Your task to perform on an android device: change keyboard looks Image 0: 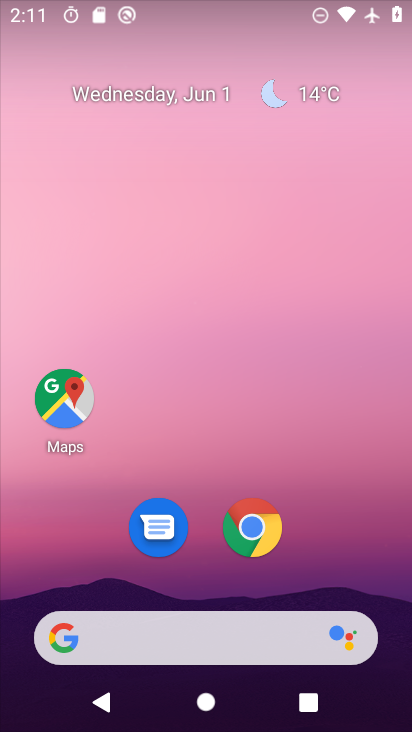
Step 0: drag from (225, 632) to (247, 267)
Your task to perform on an android device: change keyboard looks Image 1: 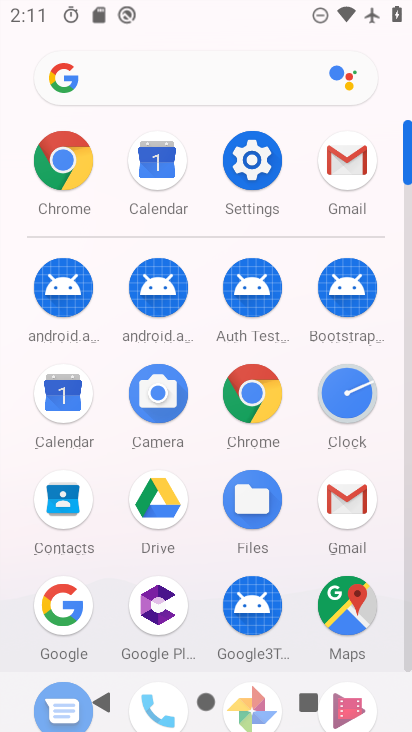
Step 1: click (270, 175)
Your task to perform on an android device: change keyboard looks Image 2: 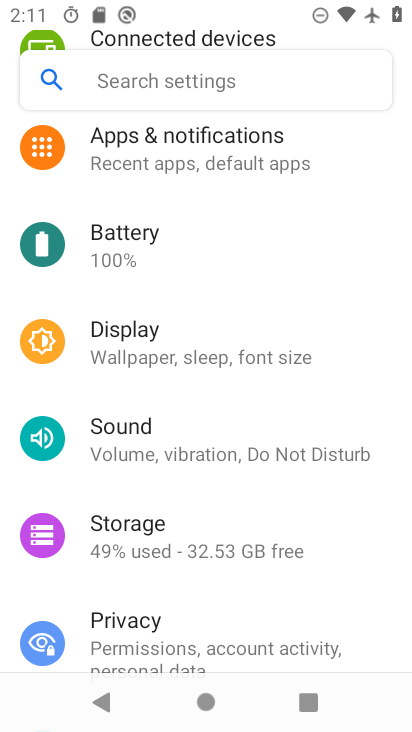
Step 2: drag from (185, 497) to (211, 273)
Your task to perform on an android device: change keyboard looks Image 3: 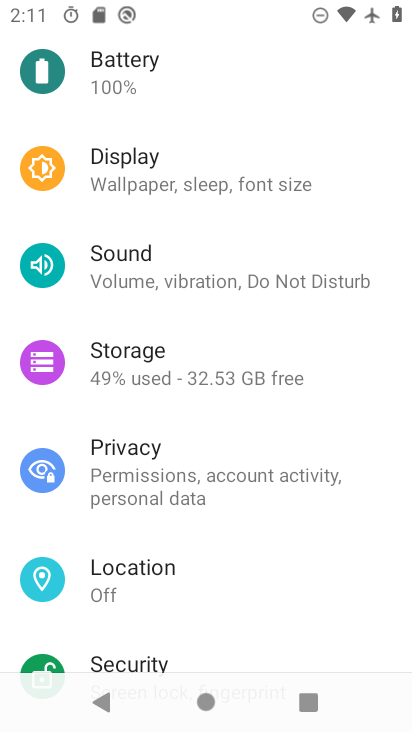
Step 3: drag from (175, 497) to (213, 228)
Your task to perform on an android device: change keyboard looks Image 4: 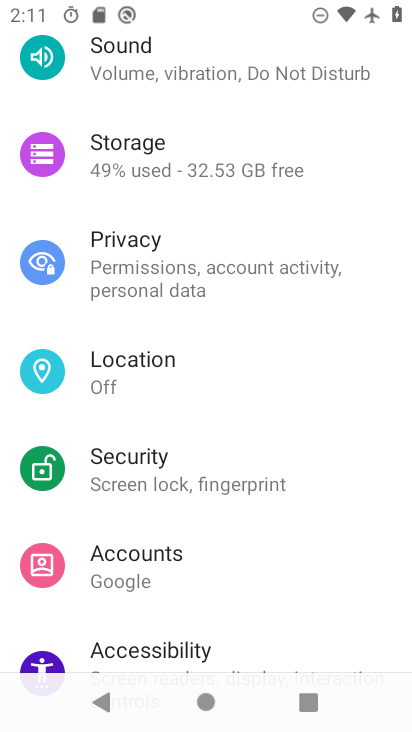
Step 4: drag from (169, 476) to (272, 62)
Your task to perform on an android device: change keyboard looks Image 5: 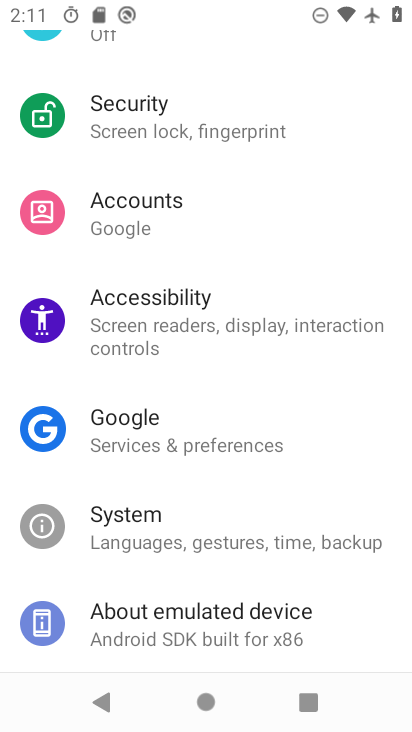
Step 5: click (248, 546)
Your task to perform on an android device: change keyboard looks Image 6: 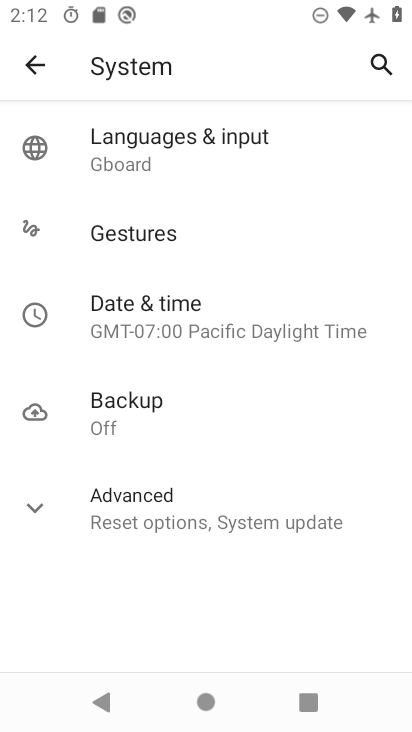
Step 6: click (205, 153)
Your task to perform on an android device: change keyboard looks Image 7: 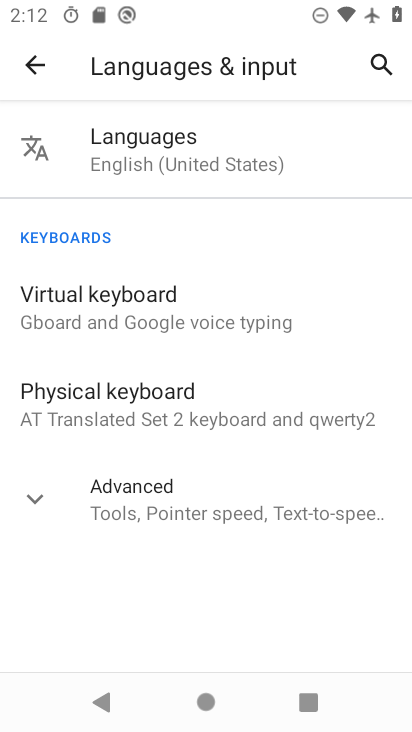
Step 7: click (157, 297)
Your task to perform on an android device: change keyboard looks Image 8: 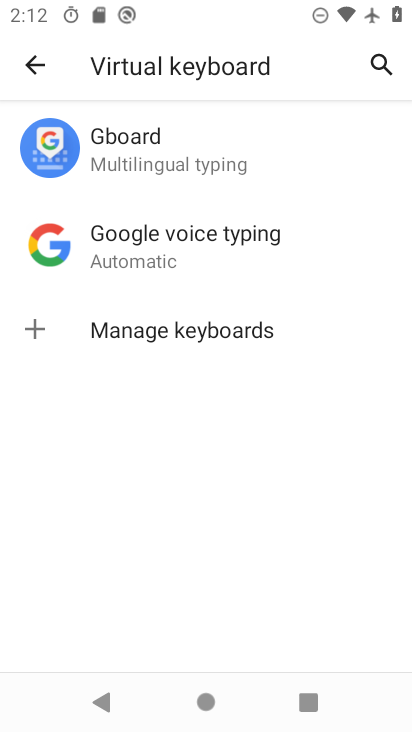
Step 8: click (225, 165)
Your task to perform on an android device: change keyboard looks Image 9: 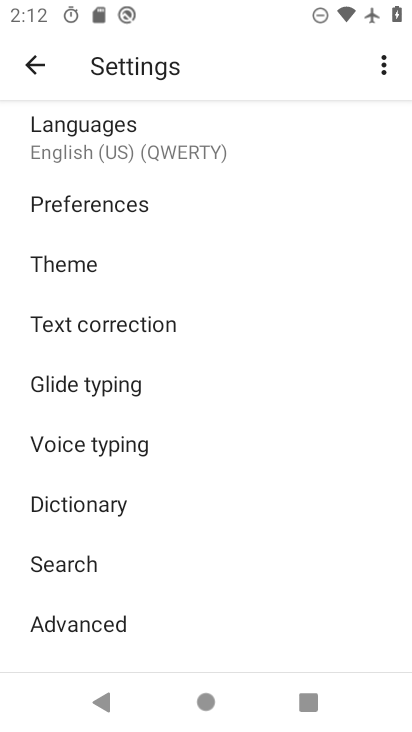
Step 9: click (117, 273)
Your task to perform on an android device: change keyboard looks Image 10: 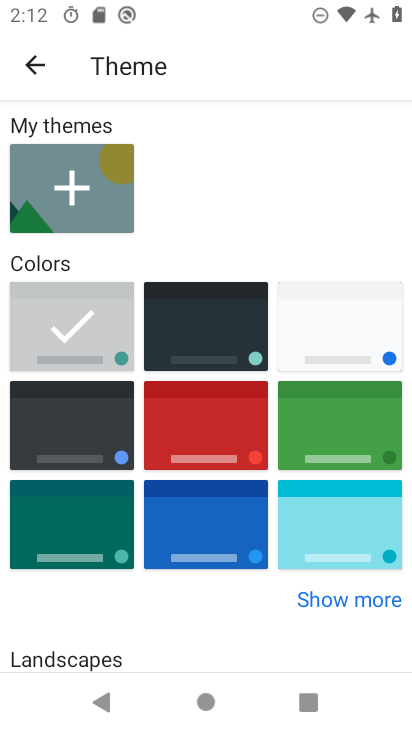
Step 10: click (238, 336)
Your task to perform on an android device: change keyboard looks Image 11: 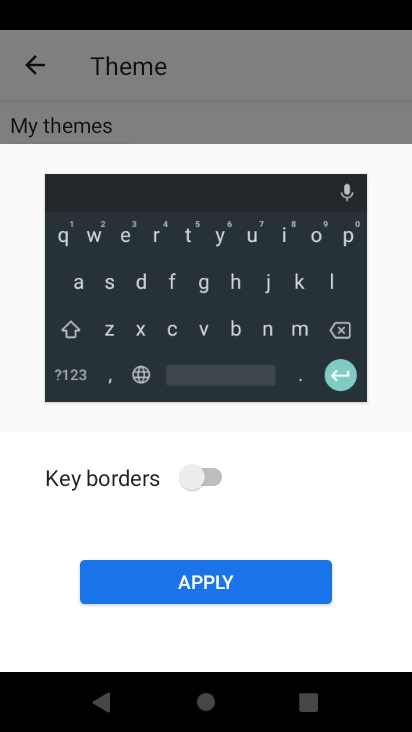
Step 11: click (211, 598)
Your task to perform on an android device: change keyboard looks Image 12: 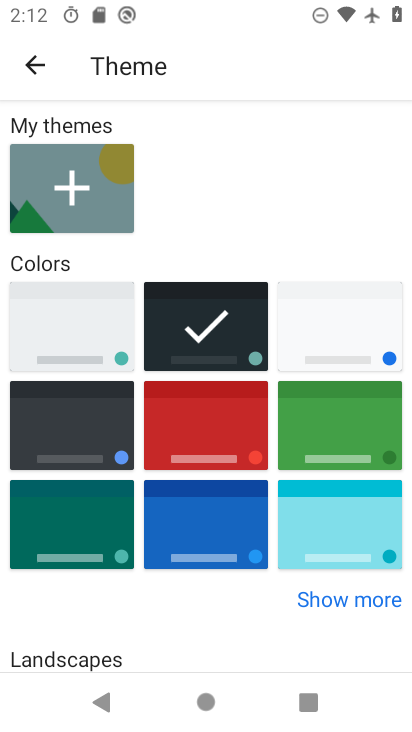
Step 12: task complete